Your task to perform on an android device: turn off smart reply in the gmail app Image 0: 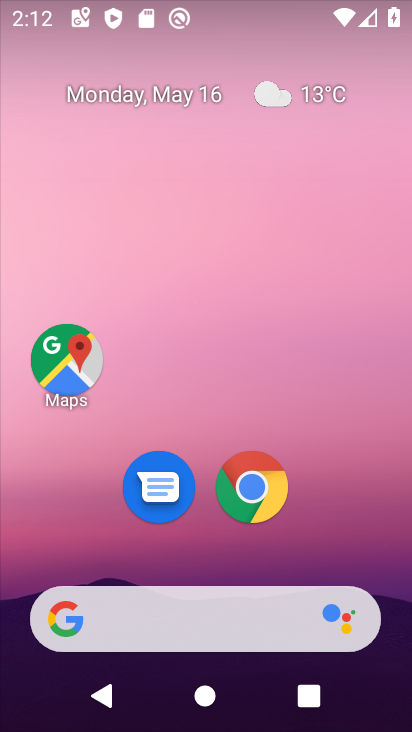
Step 0: drag from (340, 387) to (247, 19)
Your task to perform on an android device: turn off smart reply in the gmail app Image 1: 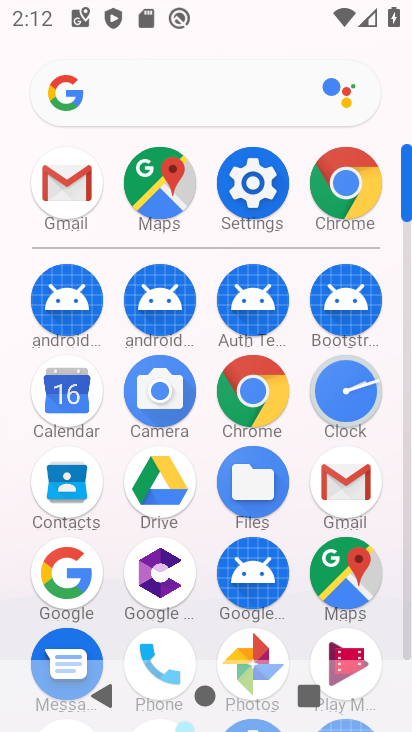
Step 1: drag from (12, 499) to (29, 196)
Your task to perform on an android device: turn off smart reply in the gmail app Image 2: 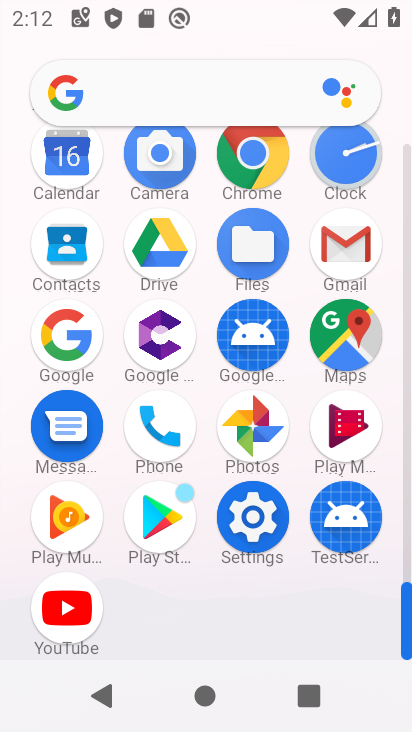
Step 2: click (342, 237)
Your task to perform on an android device: turn off smart reply in the gmail app Image 3: 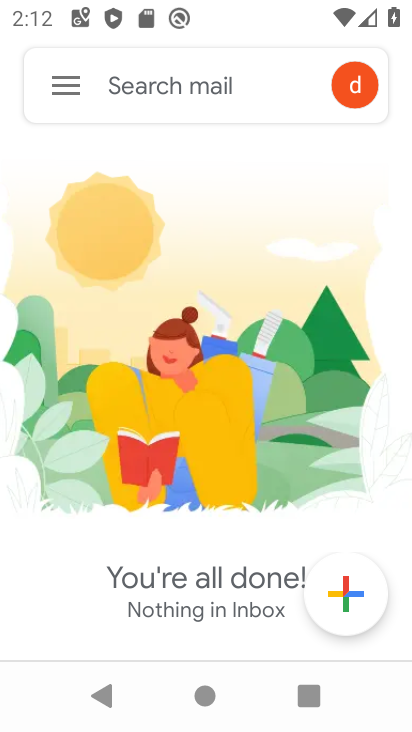
Step 3: click (56, 75)
Your task to perform on an android device: turn off smart reply in the gmail app Image 4: 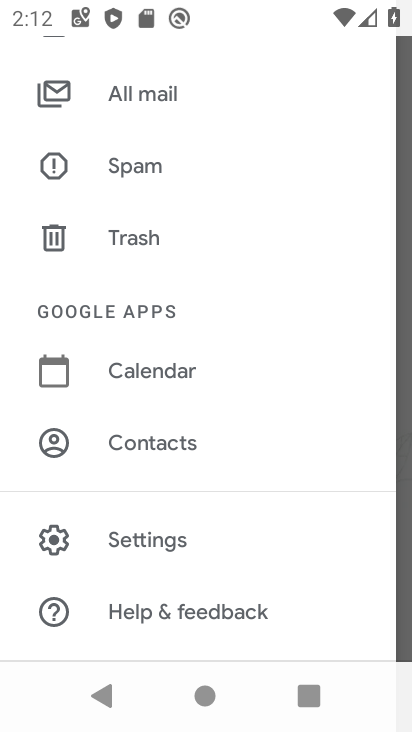
Step 4: drag from (267, 550) to (242, 210)
Your task to perform on an android device: turn off smart reply in the gmail app Image 5: 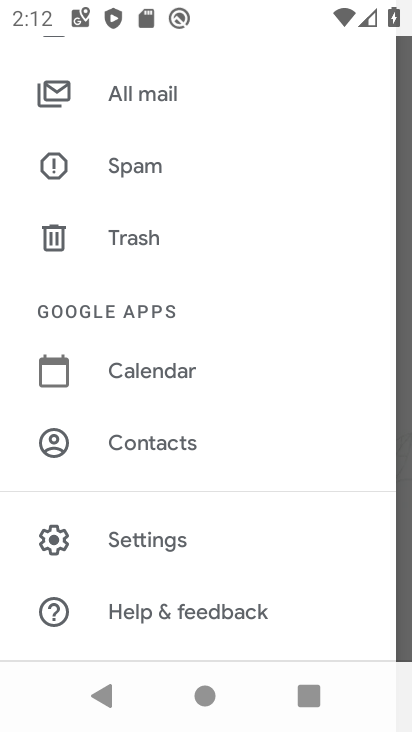
Step 5: click (121, 540)
Your task to perform on an android device: turn off smart reply in the gmail app Image 6: 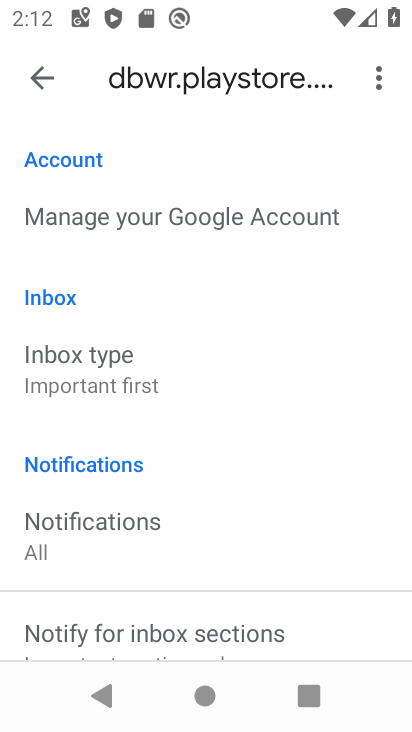
Step 6: drag from (238, 535) to (240, 211)
Your task to perform on an android device: turn off smart reply in the gmail app Image 7: 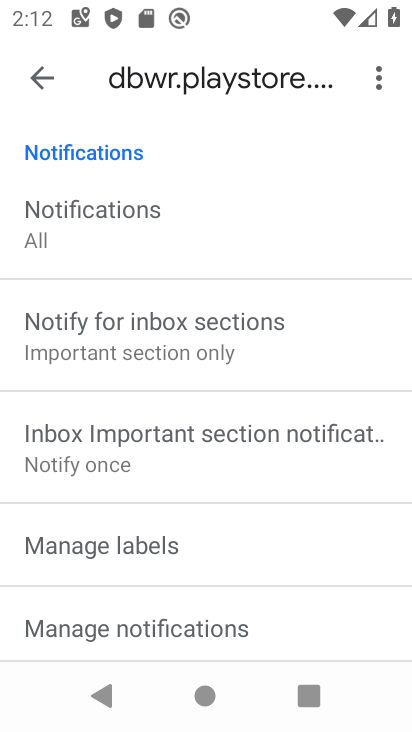
Step 7: drag from (196, 559) to (239, 165)
Your task to perform on an android device: turn off smart reply in the gmail app Image 8: 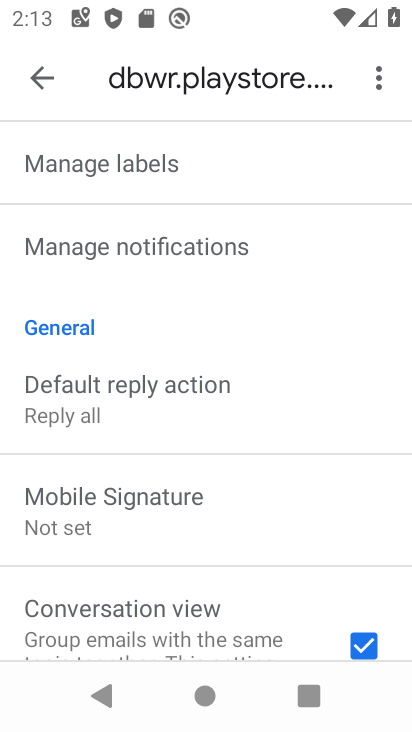
Step 8: drag from (242, 551) to (226, 175)
Your task to perform on an android device: turn off smart reply in the gmail app Image 9: 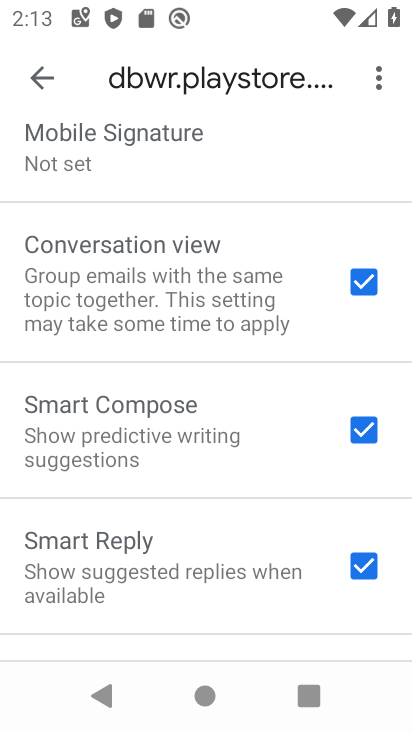
Step 9: drag from (188, 528) to (195, 213)
Your task to perform on an android device: turn off smart reply in the gmail app Image 10: 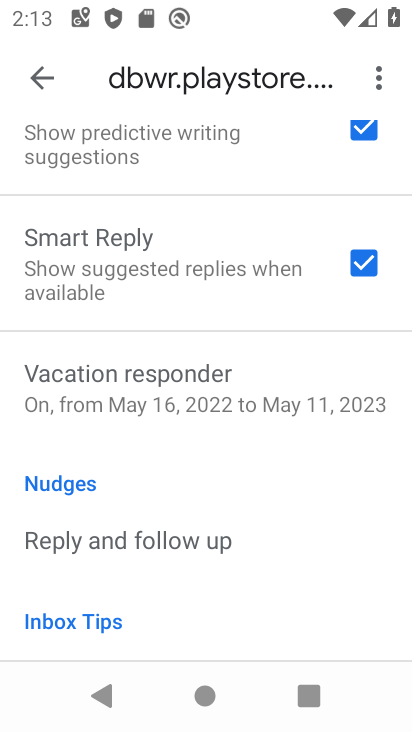
Step 10: drag from (151, 547) to (184, 199)
Your task to perform on an android device: turn off smart reply in the gmail app Image 11: 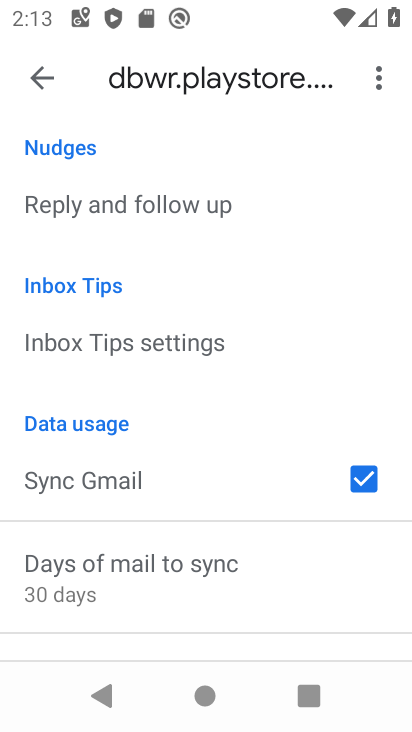
Step 11: drag from (259, 280) to (229, 559)
Your task to perform on an android device: turn off smart reply in the gmail app Image 12: 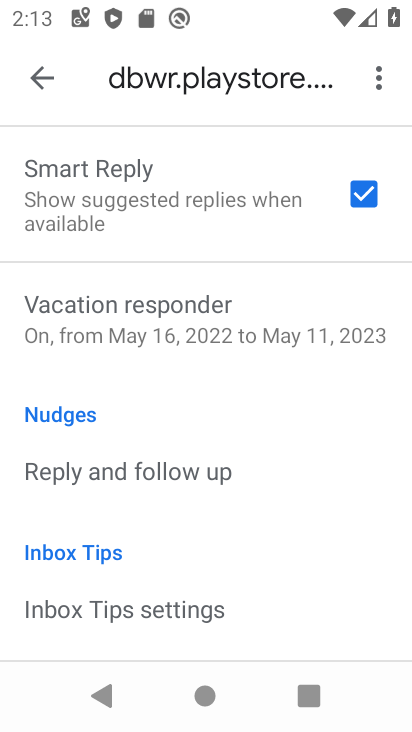
Step 12: click (219, 313)
Your task to perform on an android device: turn off smart reply in the gmail app Image 13: 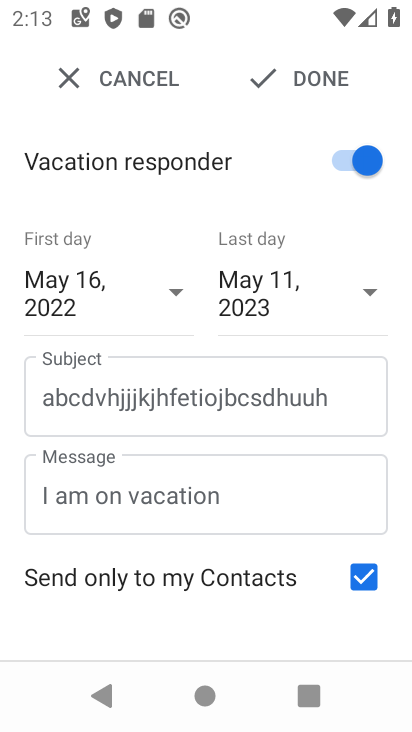
Step 13: click (288, 81)
Your task to perform on an android device: turn off smart reply in the gmail app Image 14: 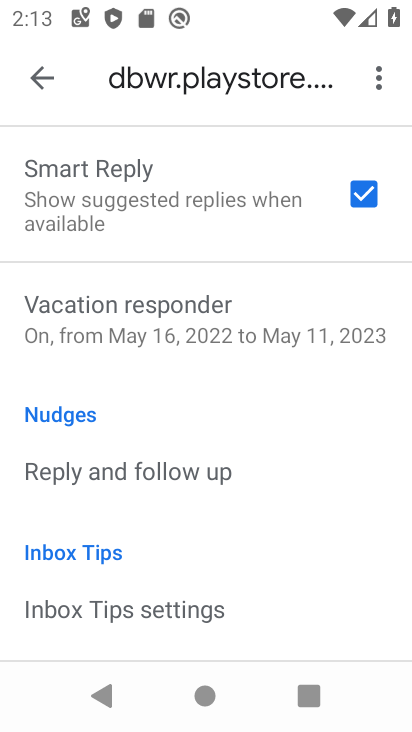
Step 14: click (362, 191)
Your task to perform on an android device: turn off smart reply in the gmail app Image 15: 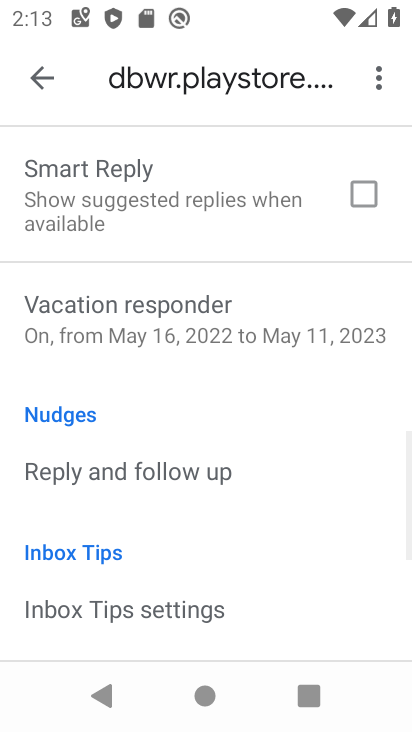
Step 15: task complete